Your task to perform on an android device: Go to sound settings Image 0: 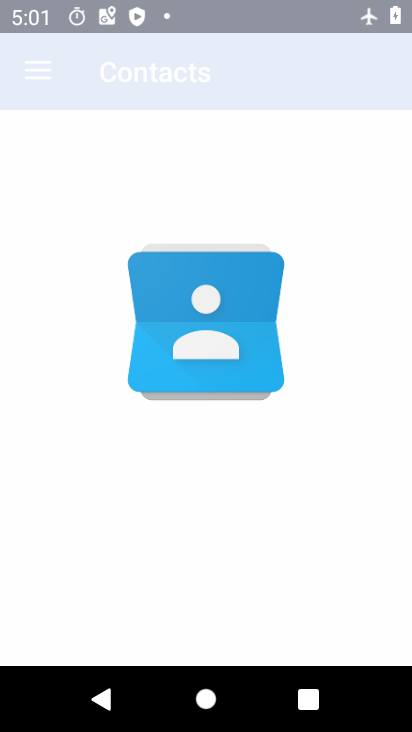
Step 0: drag from (353, 473) to (351, 271)
Your task to perform on an android device: Go to sound settings Image 1: 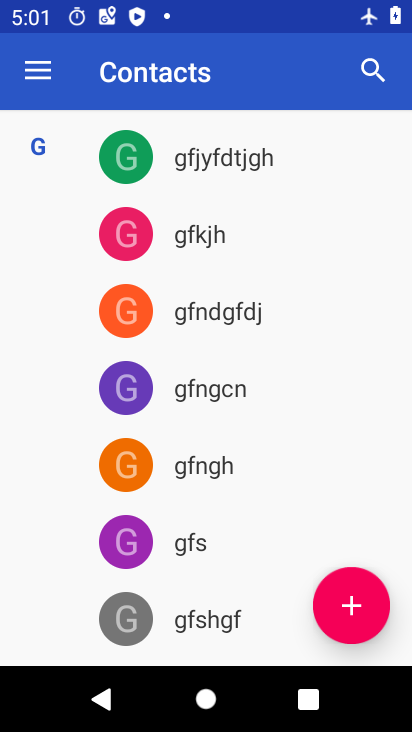
Step 1: press home button
Your task to perform on an android device: Go to sound settings Image 2: 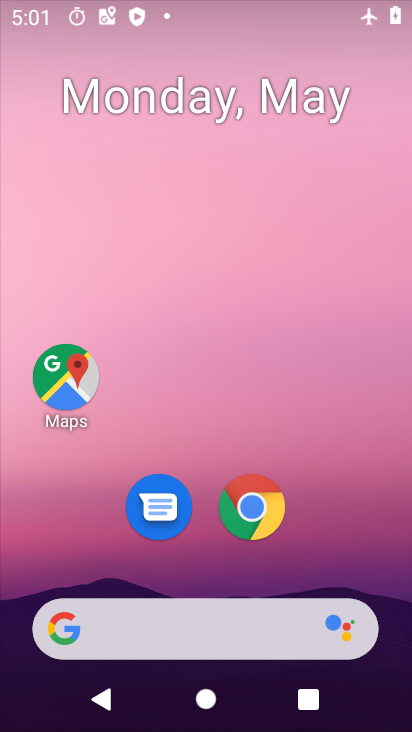
Step 2: drag from (363, 491) to (380, 81)
Your task to perform on an android device: Go to sound settings Image 3: 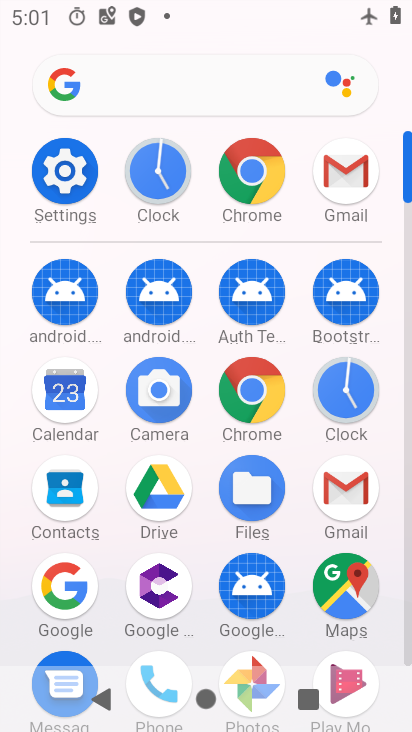
Step 3: click (73, 180)
Your task to perform on an android device: Go to sound settings Image 4: 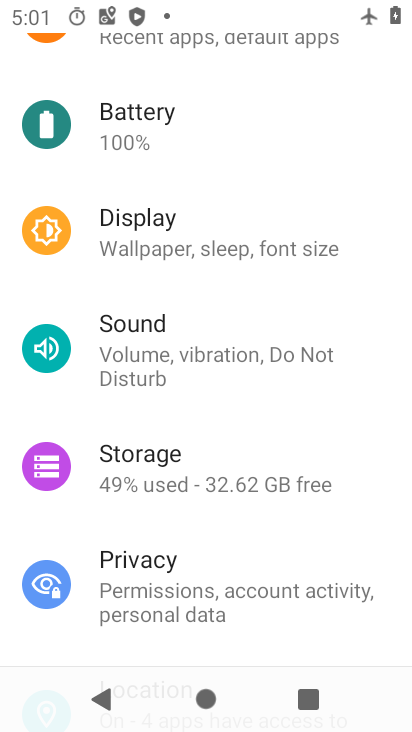
Step 4: click (161, 337)
Your task to perform on an android device: Go to sound settings Image 5: 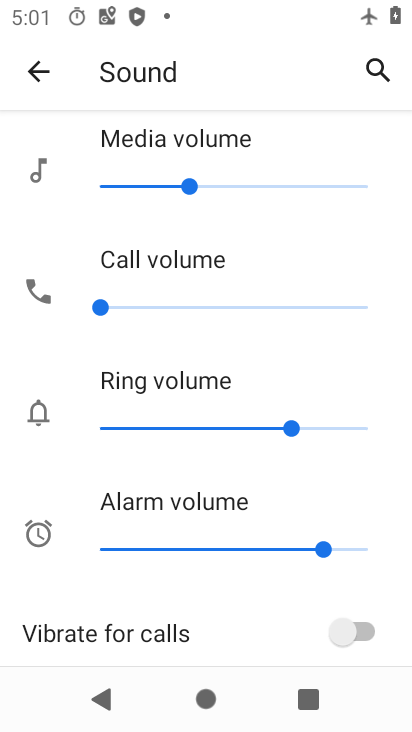
Step 5: task complete